Your task to perform on an android device: change the clock display to analog Image 0: 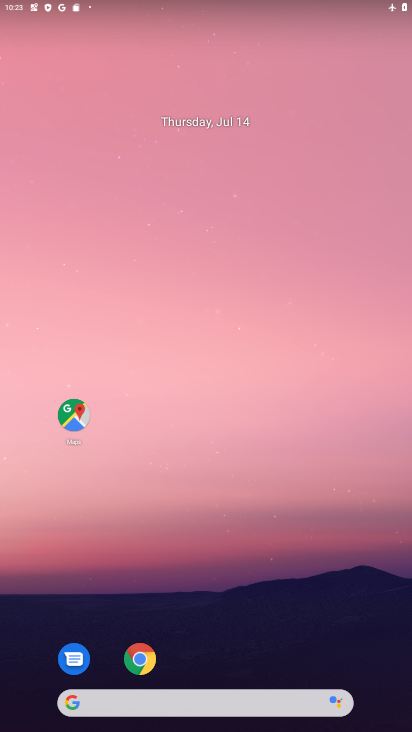
Step 0: drag from (301, 581) to (297, 22)
Your task to perform on an android device: change the clock display to analog Image 1: 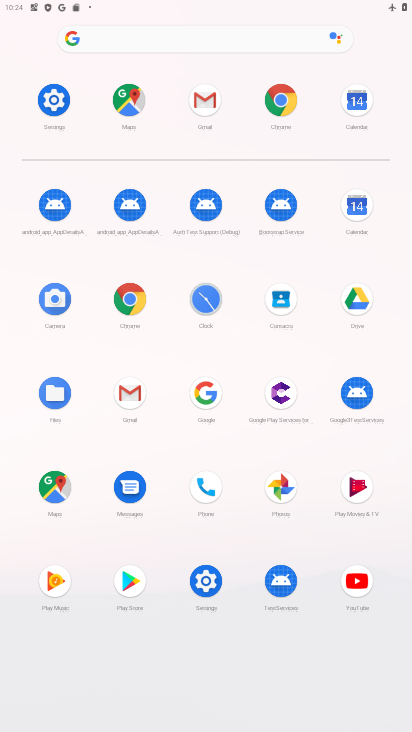
Step 1: click (206, 296)
Your task to perform on an android device: change the clock display to analog Image 2: 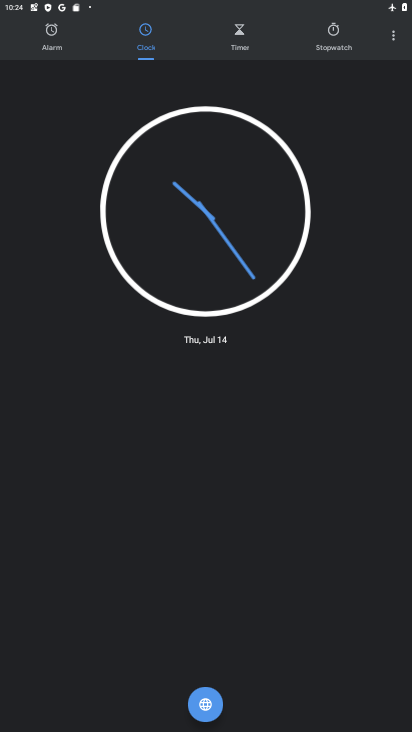
Step 2: click (395, 39)
Your task to perform on an android device: change the clock display to analog Image 3: 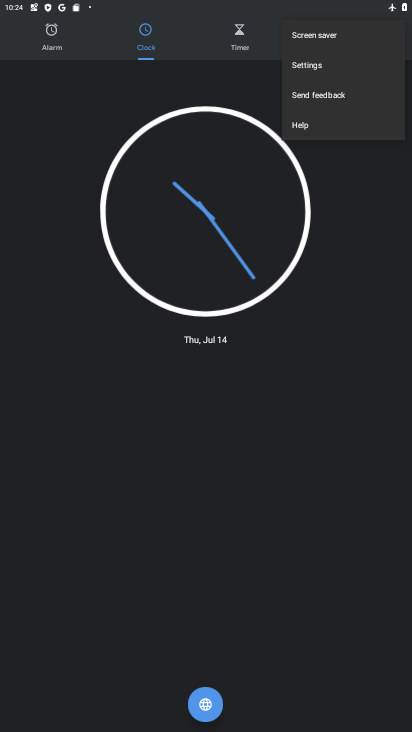
Step 3: click (318, 69)
Your task to perform on an android device: change the clock display to analog Image 4: 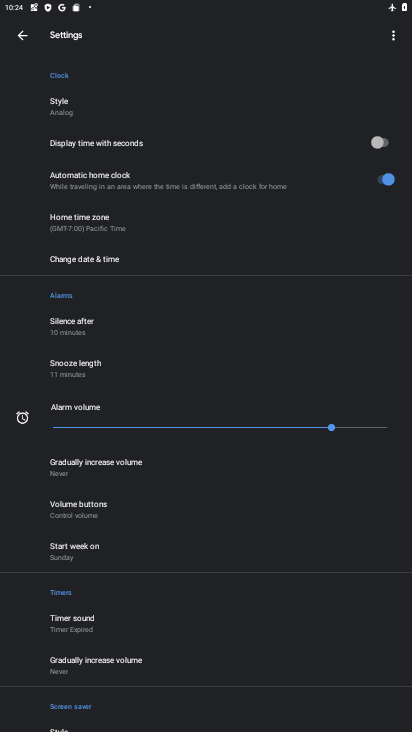
Step 4: click (73, 106)
Your task to perform on an android device: change the clock display to analog Image 5: 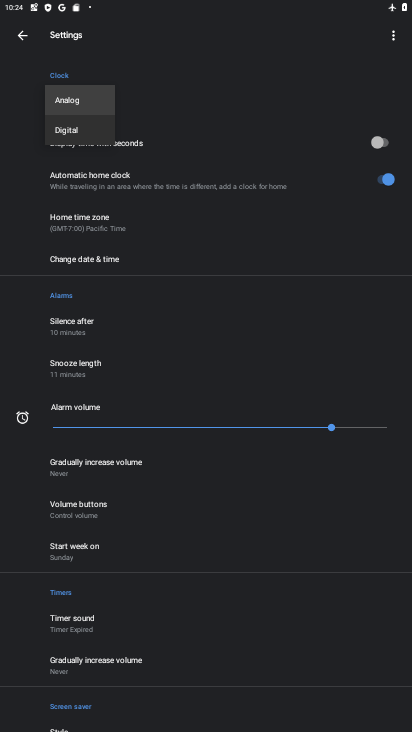
Step 5: task complete